Your task to perform on an android device: check battery use Image 0: 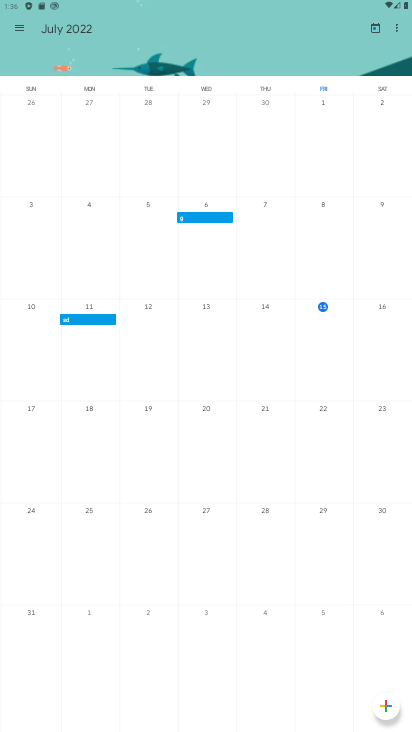
Step 0: press home button
Your task to perform on an android device: check battery use Image 1: 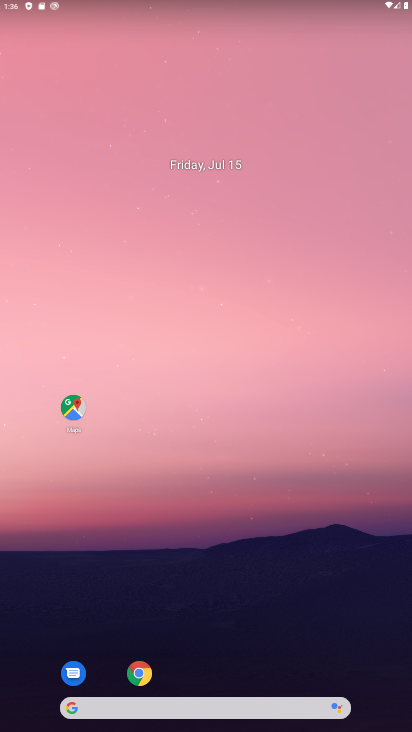
Step 1: drag from (285, 425) to (319, 225)
Your task to perform on an android device: check battery use Image 2: 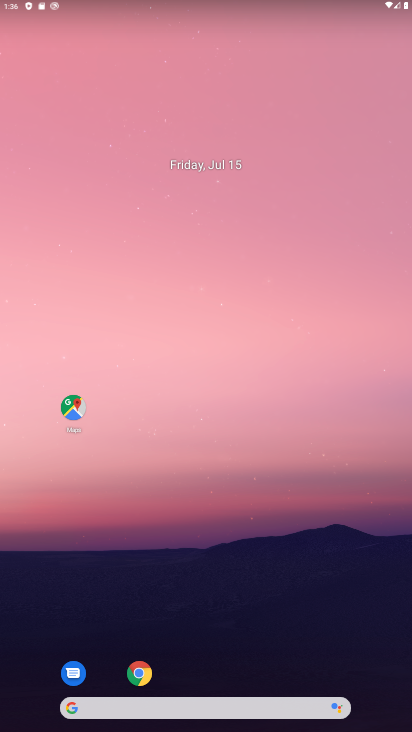
Step 2: drag from (209, 676) to (261, 178)
Your task to perform on an android device: check battery use Image 3: 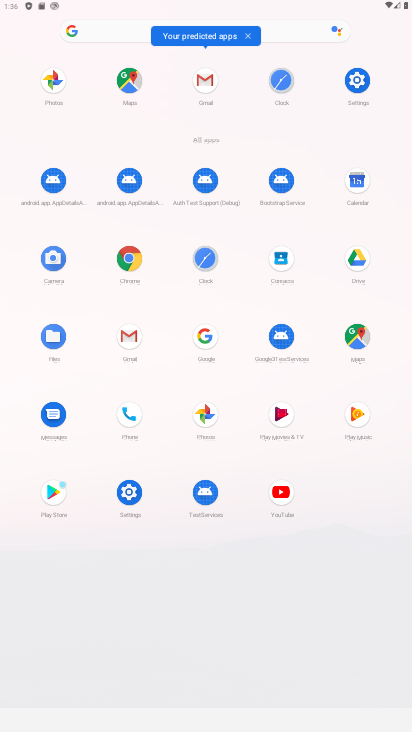
Step 3: click (125, 490)
Your task to perform on an android device: check battery use Image 4: 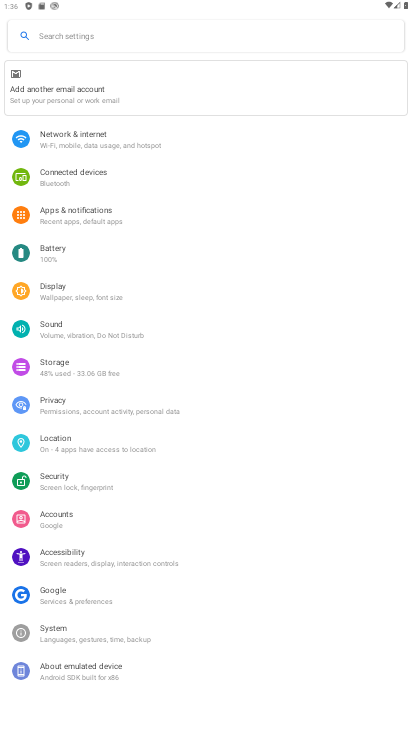
Step 4: click (95, 261)
Your task to perform on an android device: check battery use Image 5: 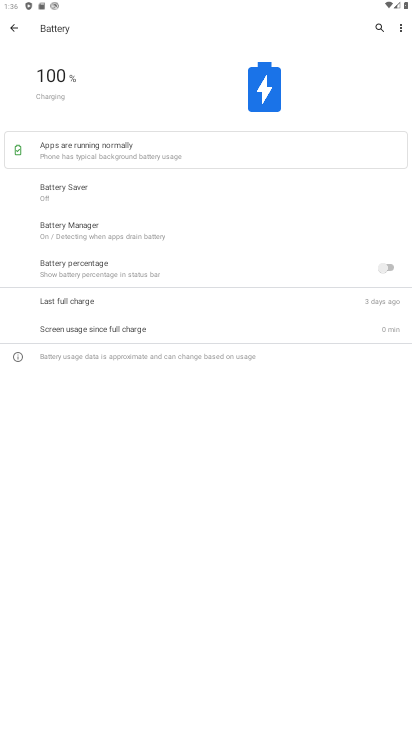
Step 5: click (397, 26)
Your task to perform on an android device: check battery use Image 6: 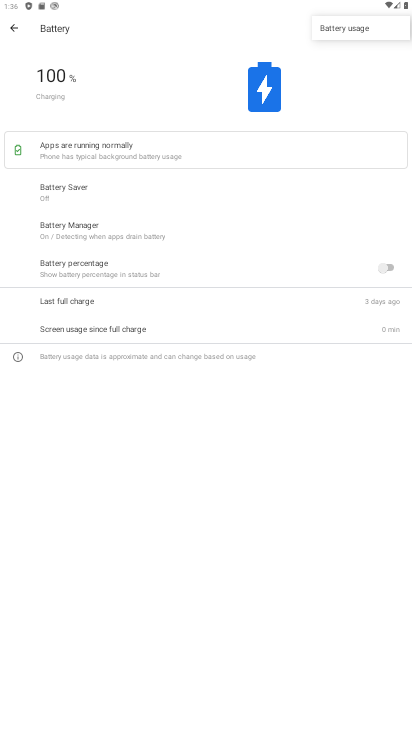
Step 6: click (394, 29)
Your task to perform on an android device: check battery use Image 7: 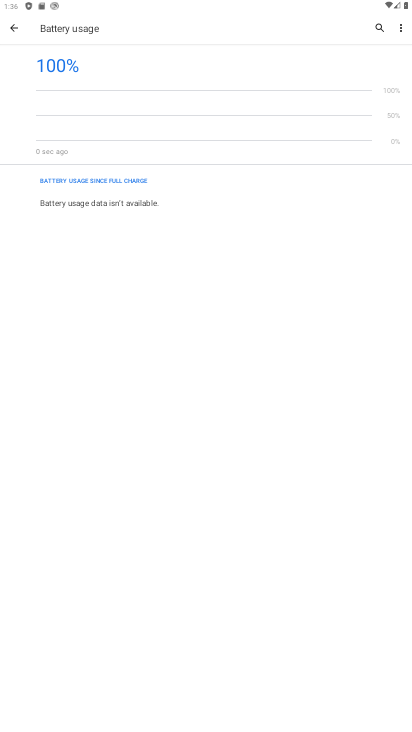
Step 7: task complete